Your task to perform on an android device: turn off improve location accuracy Image 0: 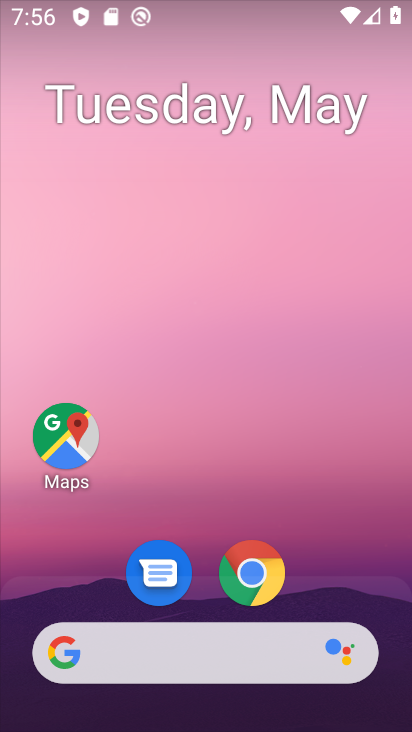
Step 0: drag from (371, 445) to (358, 225)
Your task to perform on an android device: turn off improve location accuracy Image 1: 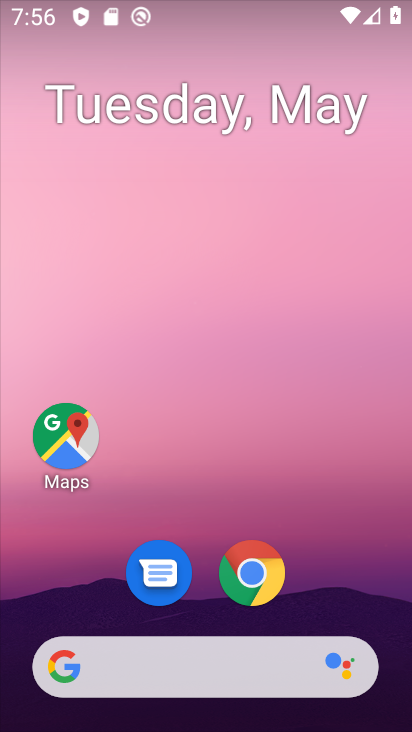
Step 1: drag from (392, 692) to (393, 131)
Your task to perform on an android device: turn off improve location accuracy Image 2: 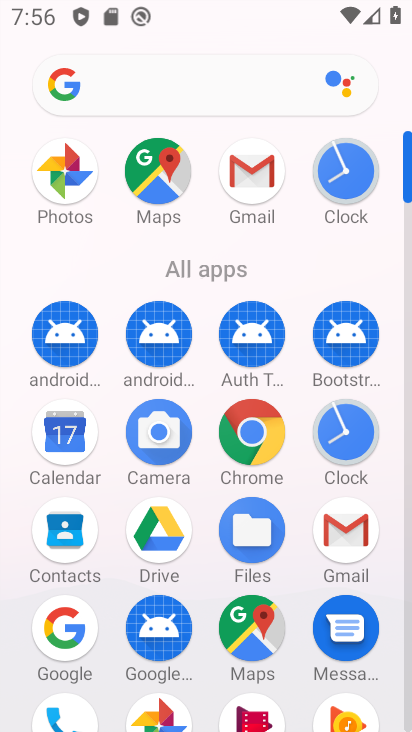
Step 2: drag from (401, 112) to (406, 68)
Your task to perform on an android device: turn off improve location accuracy Image 3: 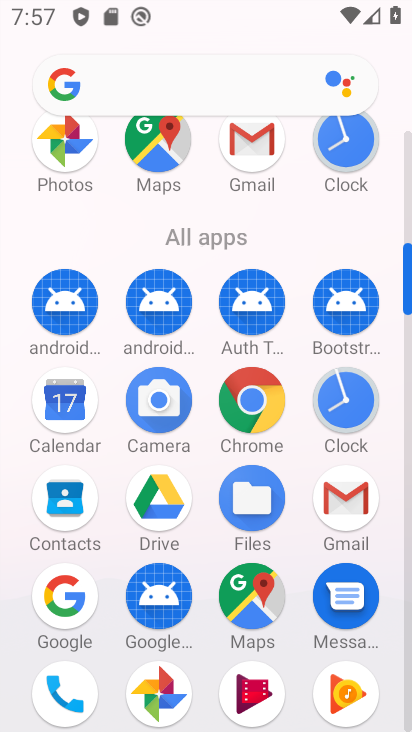
Step 3: drag from (403, 261) to (397, 126)
Your task to perform on an android device: turn off improve location accuracy Image 4: 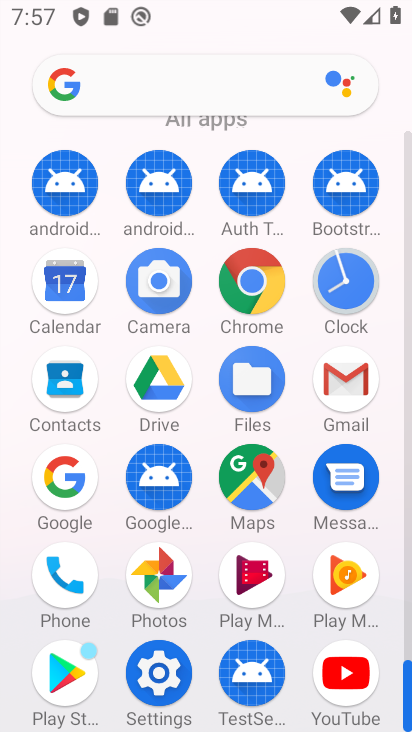
Step 4: click (147, 662)
Your task to perform on an android device: turn off improve location accuracy Image 5: 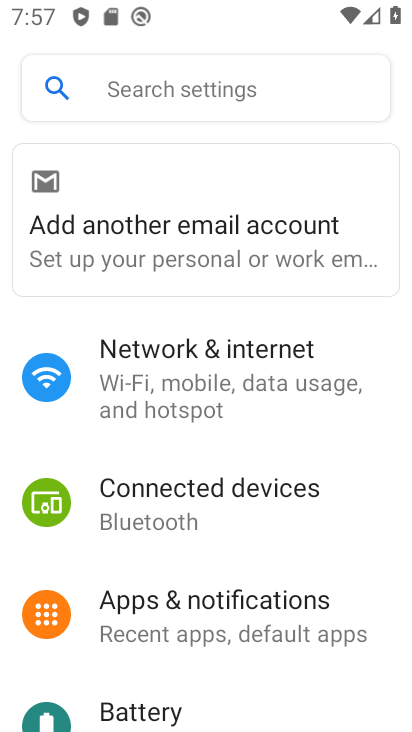
Step 5: drag from (262, 684) to (264, 570)
Your task to perform on an android device: turn off improve location accuracy Image 6: 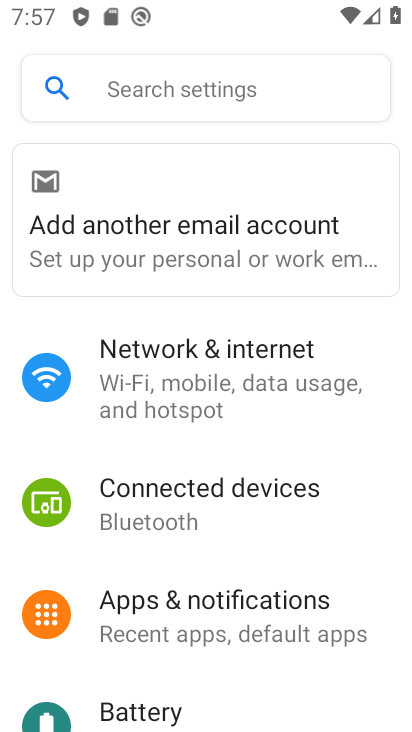
Step 6: drag from (370, 658) to (346, 240)
Your task to perform on an android device: turn off improve location accuracy Image 7: 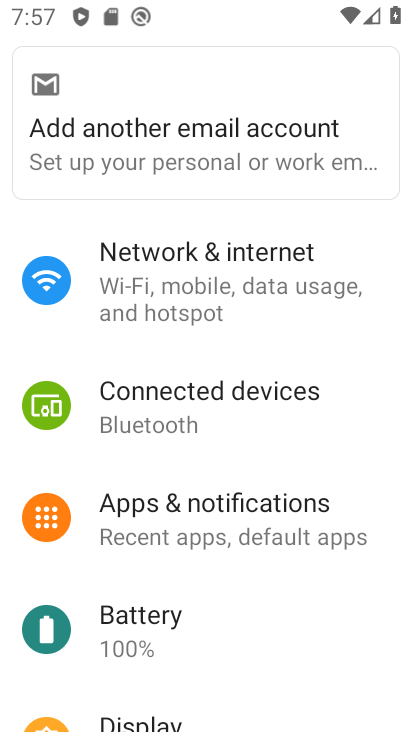
Step 7: drag from (347, 656) to (339, 290)
Your task to perform on an android device: turn off improve location accuracy Image 8: 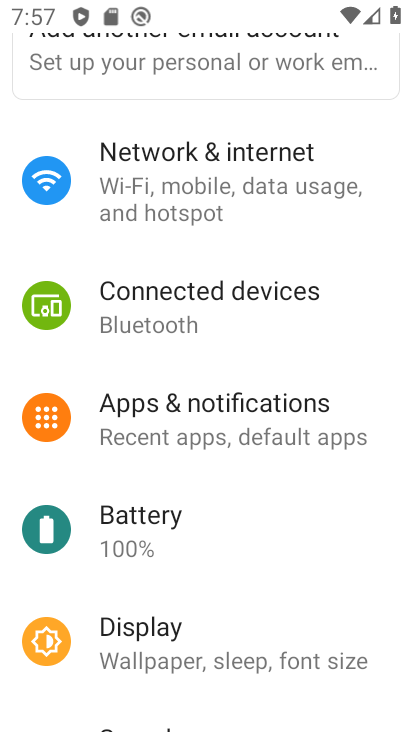
Step 8: click (290, 500)
Your task to perform on an android device: turn off improve location accuracy Image 9: 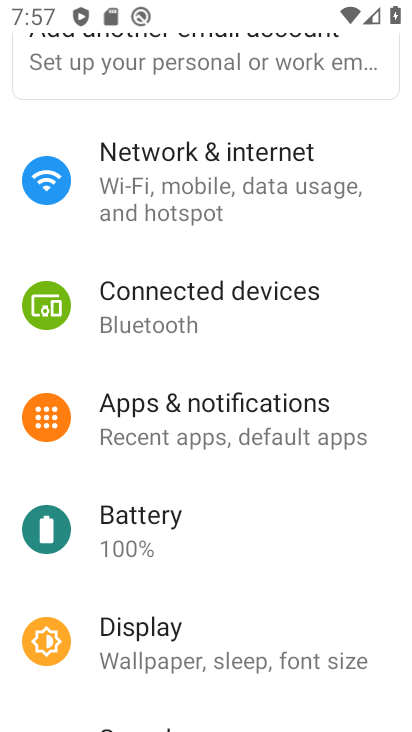
Step 9: drag from (287, 700) to (244, 278)
Your task to perform on an android device: turn off improve location accuracy Image 10: 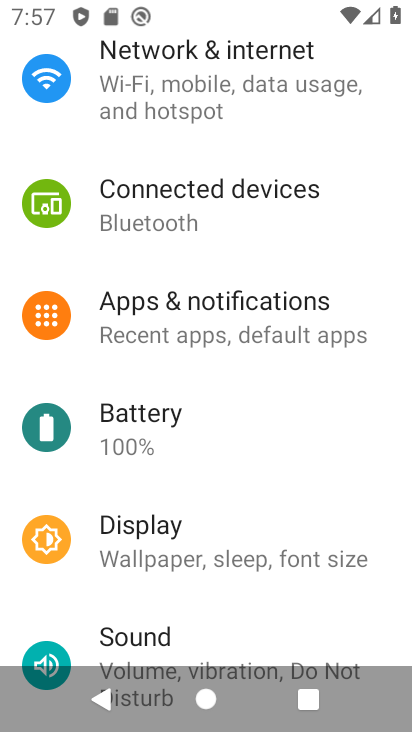
Step 10: drag from (251, 627) to (251, 298)
Your task to perform on an android device: turn off improve location accuracy Image 11: 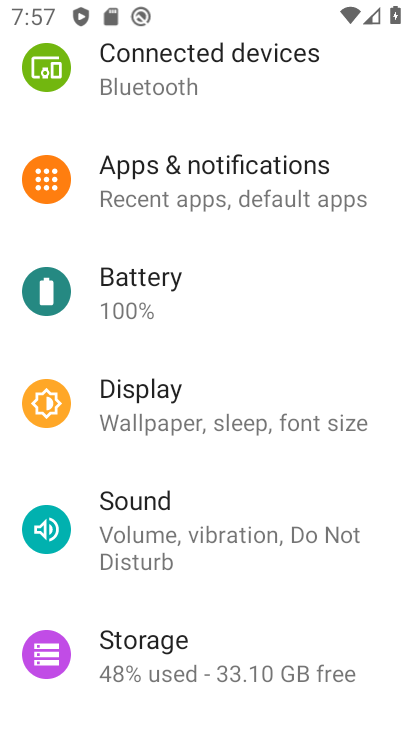
Step 11: drag from (241, 628) to (228, 351)
Your task to perform on an android device: turn off improve location accuracy Image 12: 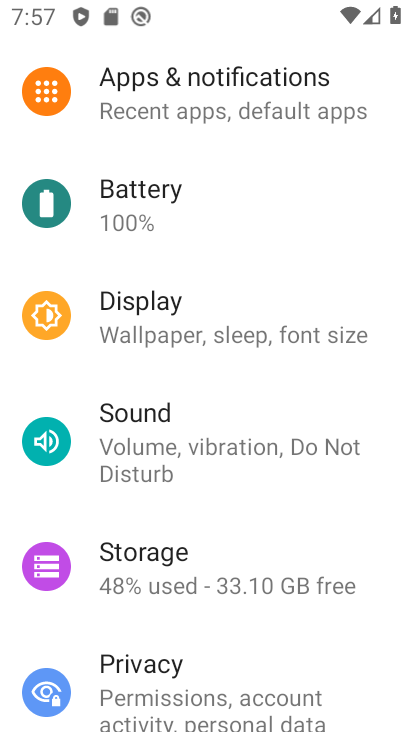
Step 12: drag from (361, 698) to (353, 306)
Your task to perform on an android device: turn off improve location accuracy Image 13: 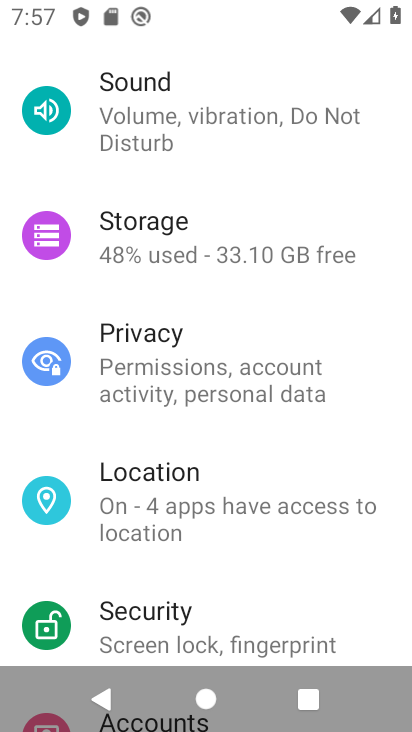
Step 13: click (160, 487)
Your task to perform on an android device: turn off improve location accuracy Image 14: 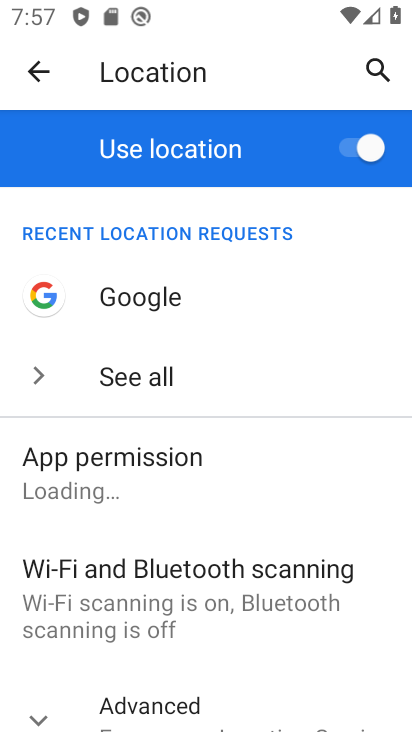
Step 14: drag from (328, 657) to (390, 158)
Your task to perform on an android device: turn off improve location accuracy Image 15: 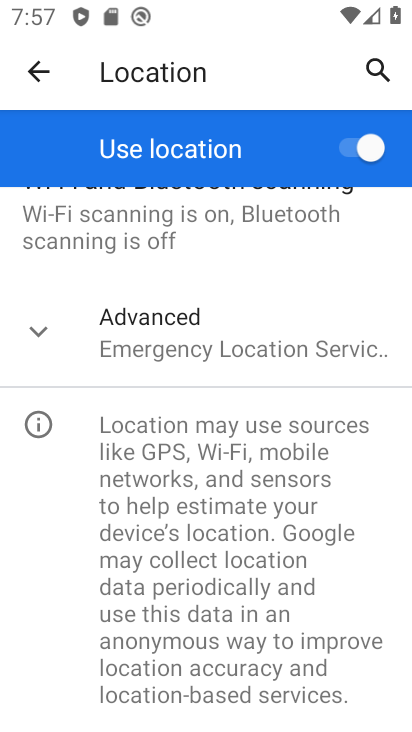
Step 15: click (37, 331)
Your task to perform on an android device: turn off improve location accuracy Image 16: 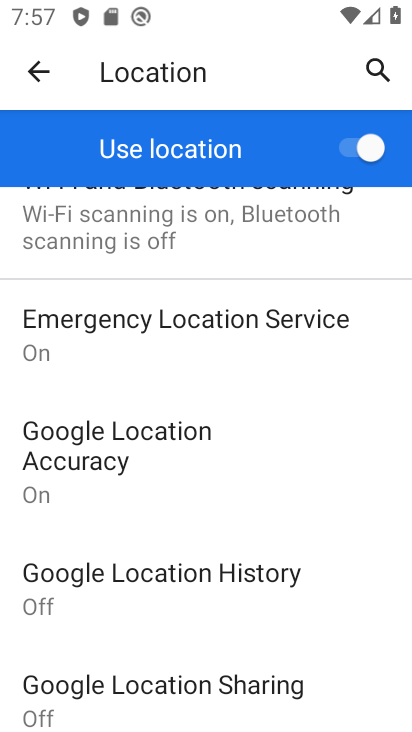
Step 16: click (65, 447)
Your task to perform on an android device: turn off improve location accuracy Image 17: 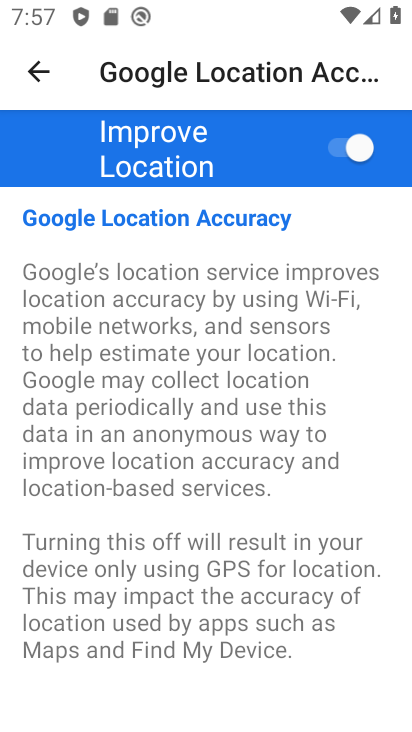
Step 17: click (342, 151)
Your task to perform on an android device: turn off improve location accuracy Image 18: 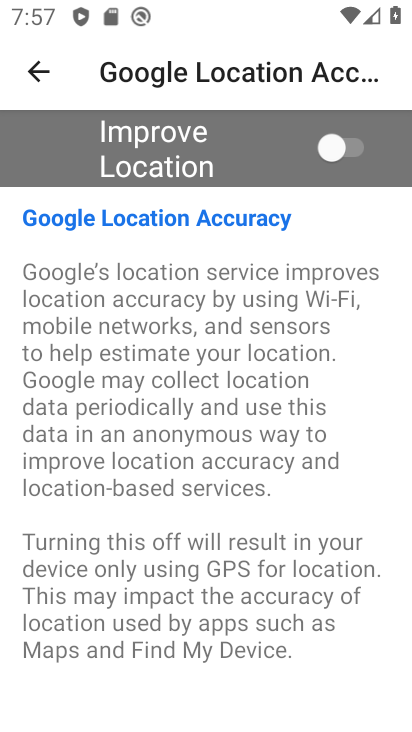
Step 18: task complete